Your task to perform on an android device: uninstall "Microsoft Excel" Image 0: 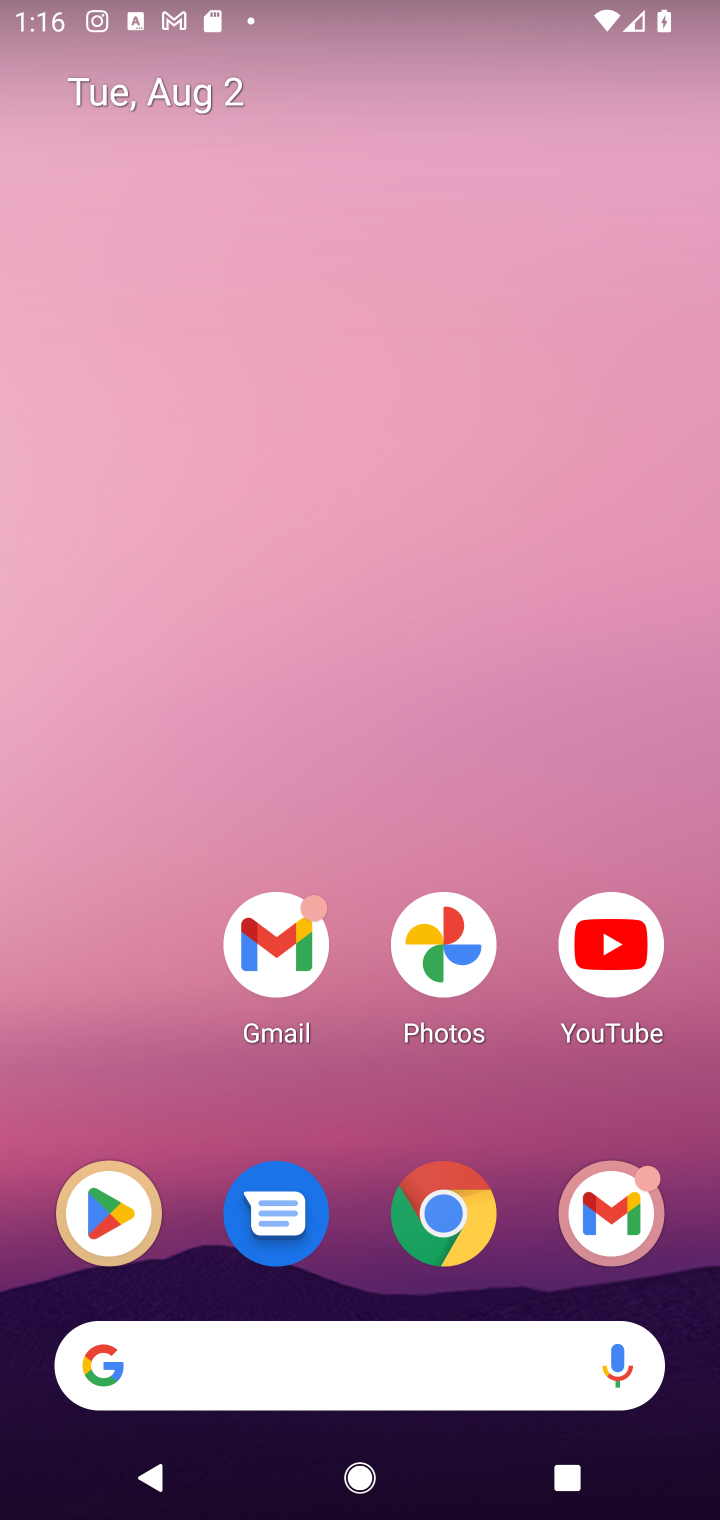
Step 0: press home button
Your task to perform on an android device: uninstall "Microsoft Excel" Image 1: 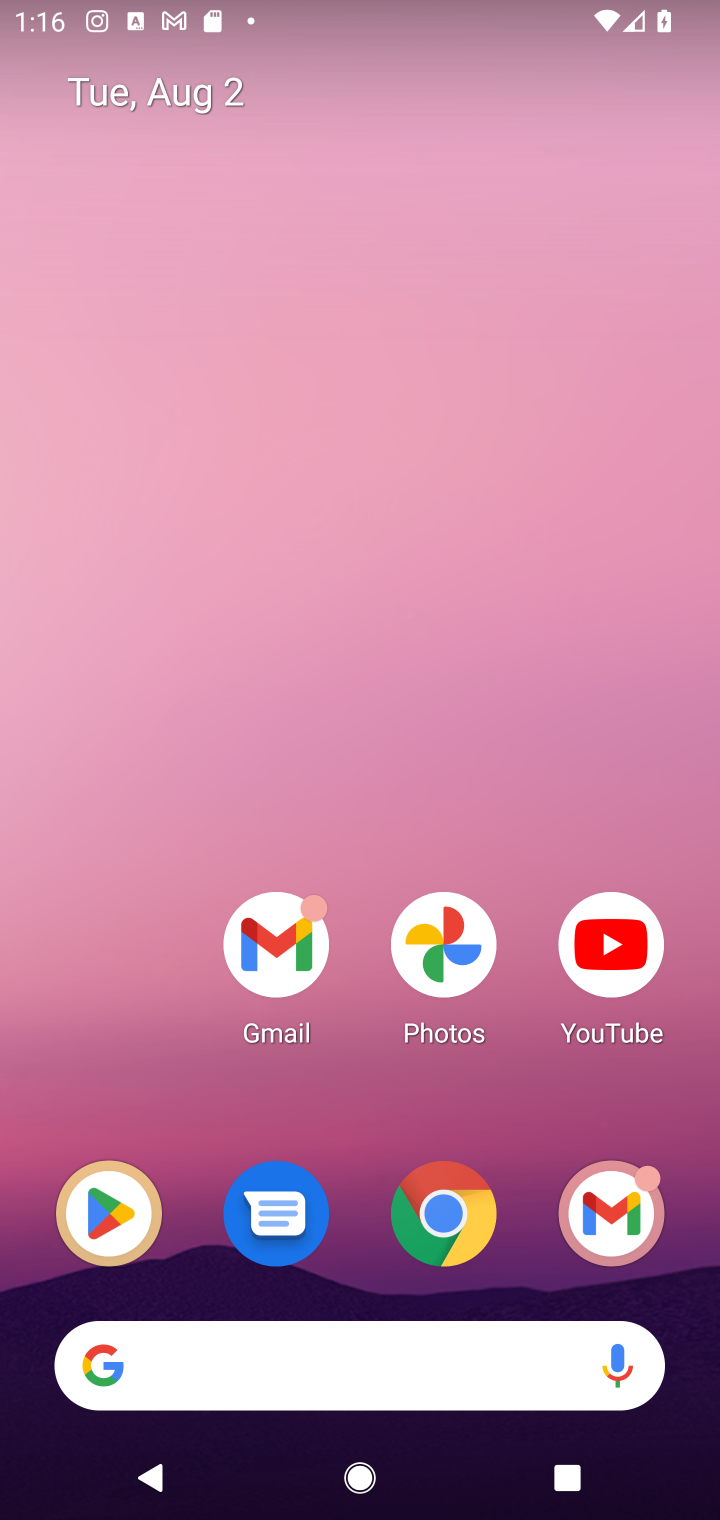
Step 1: click (109, 1210)
Your task to perform on an android device: uninstall "Microsoft Excel" Image 2: 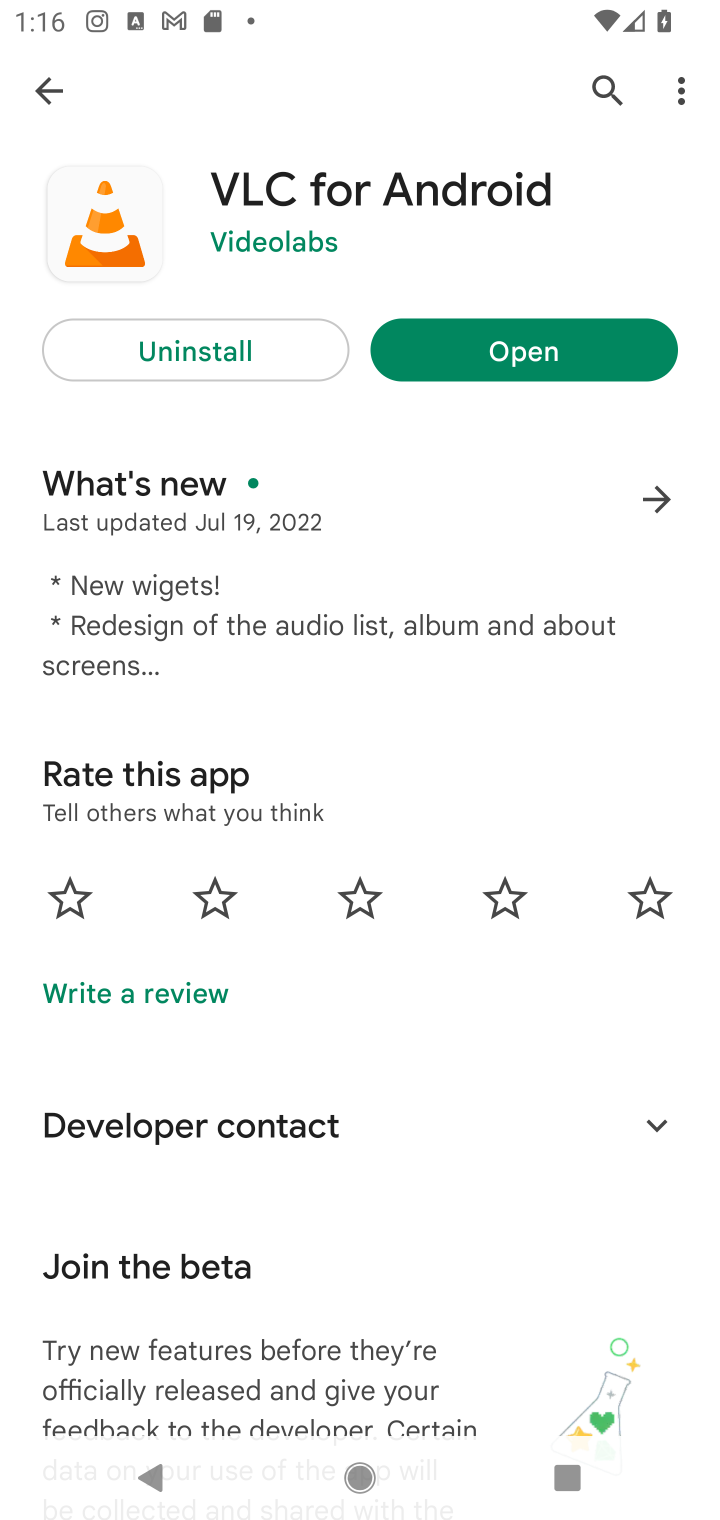
Step 2: click (40, 82)
Your task to perform on an android device: uninstall "Microsoft Excel" Image 3: 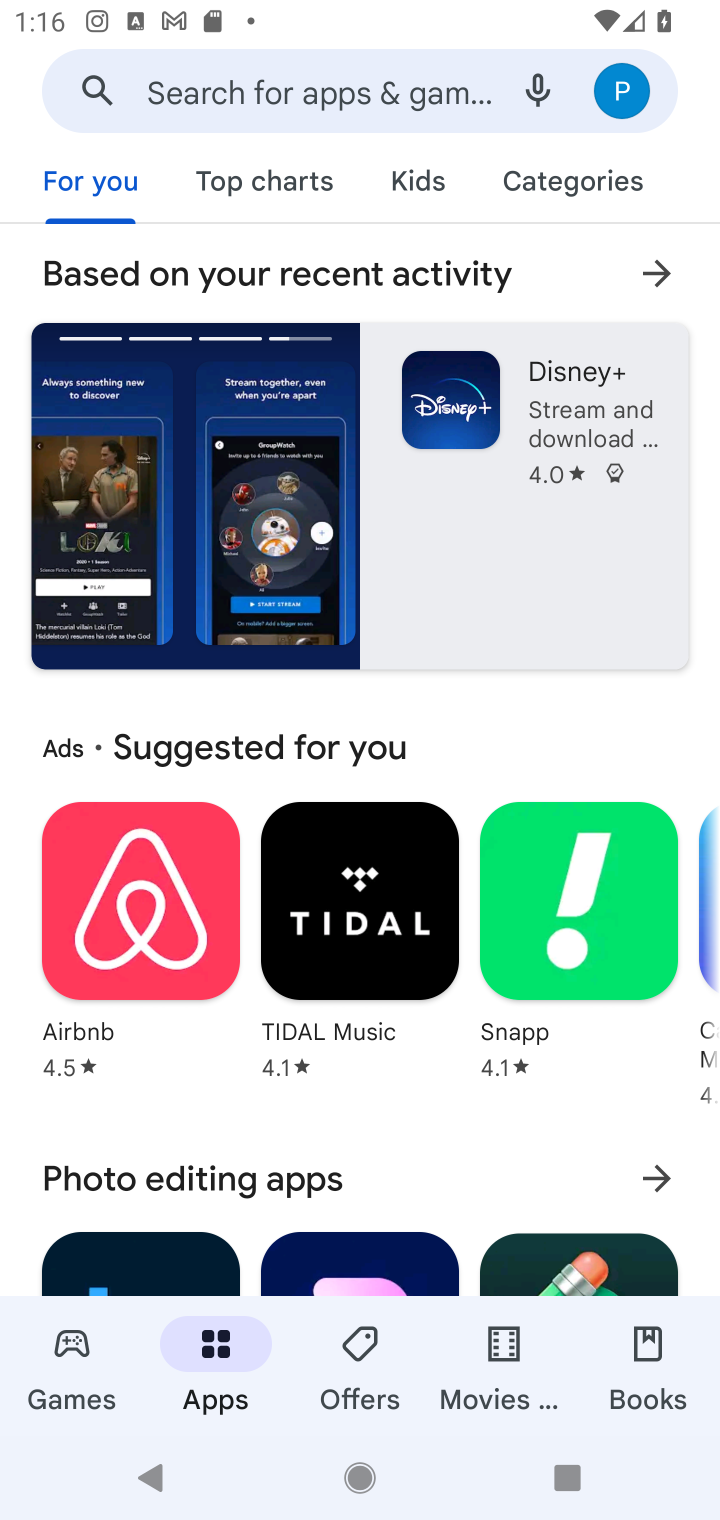
Step 3: click (243, 89)
Your task to perform on an android device: uninstall "Microsoft Excel" Image 4: 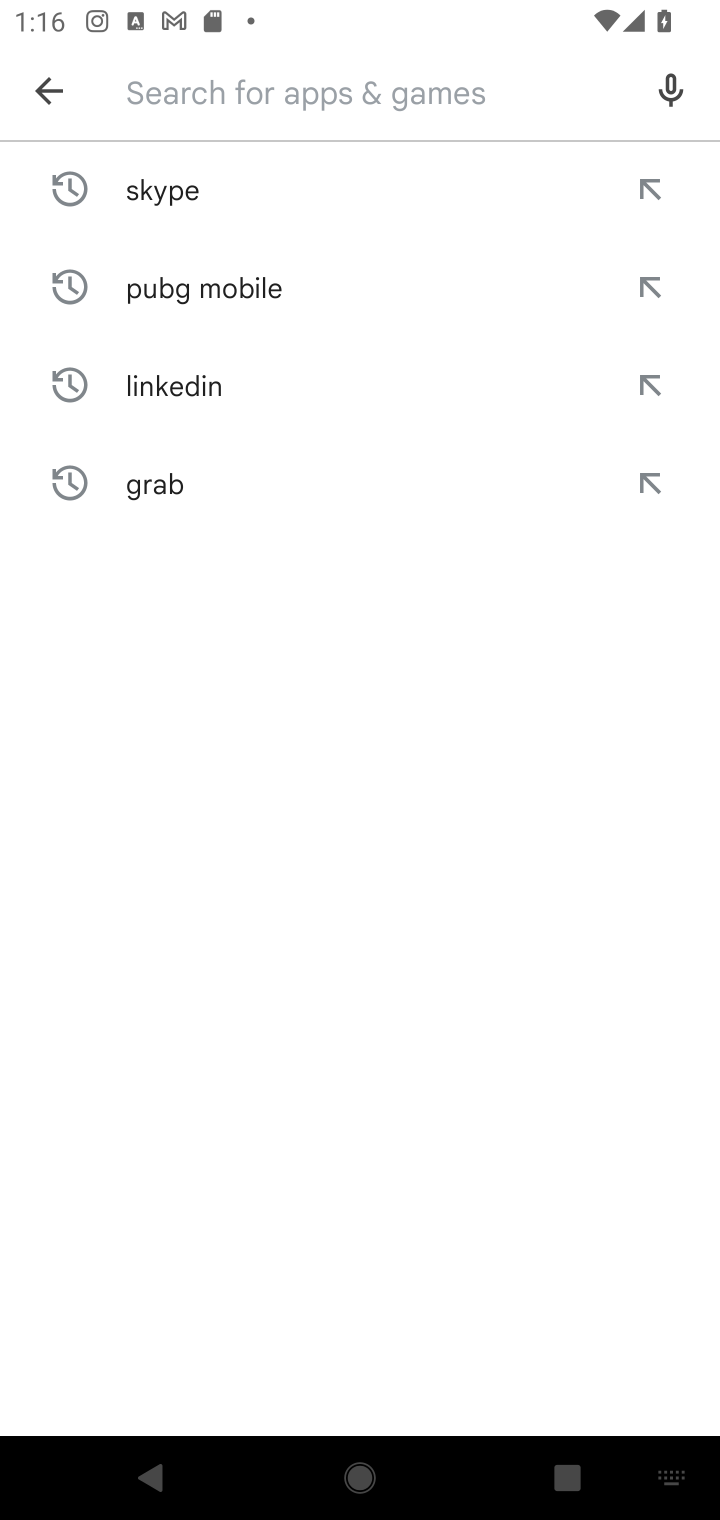
Step 4: type "Microsoft Excel"
Your task to perform on an android device: uninstall "Microsoft Excel" Image 5: 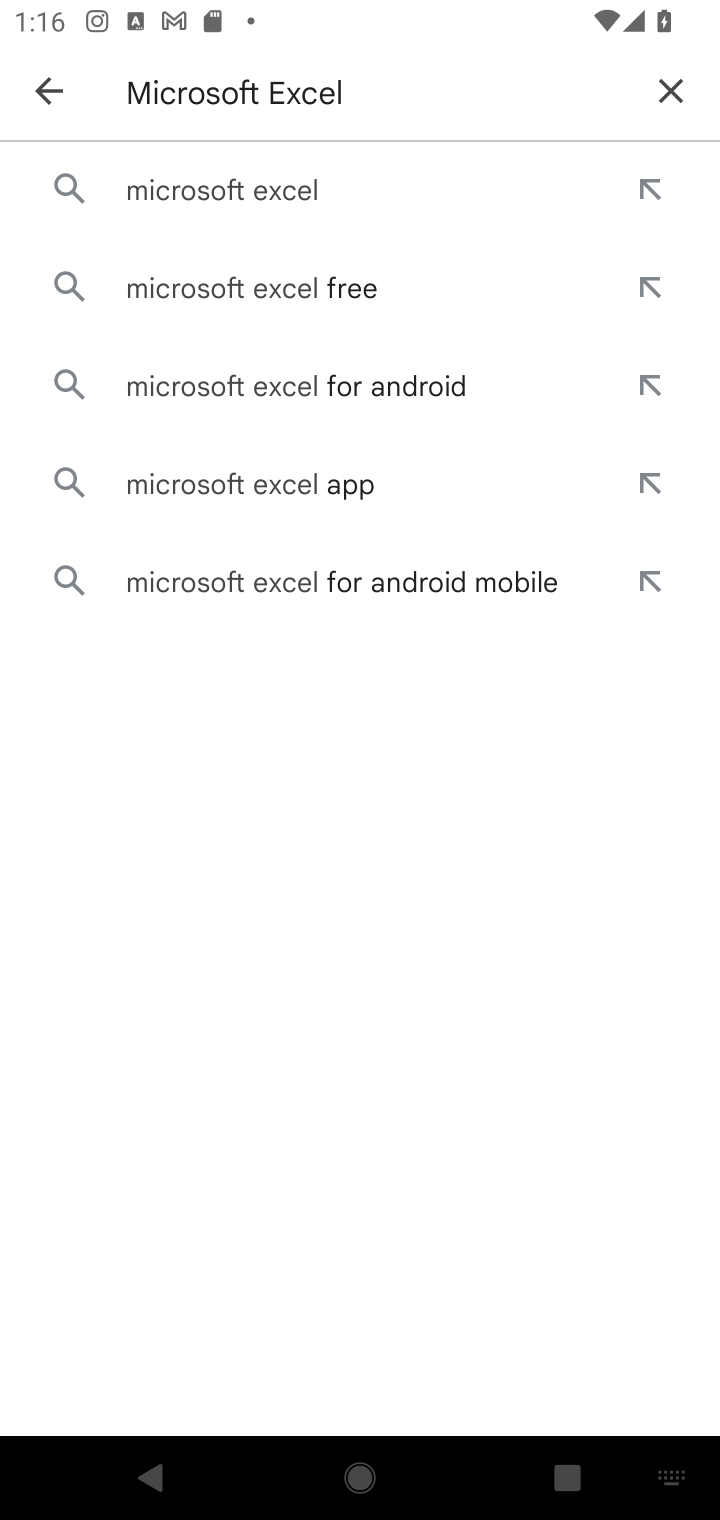
Step 5: click (300, 187)
Your task to perform on an android device: uninstall "Microsoft Excel" Image 6: 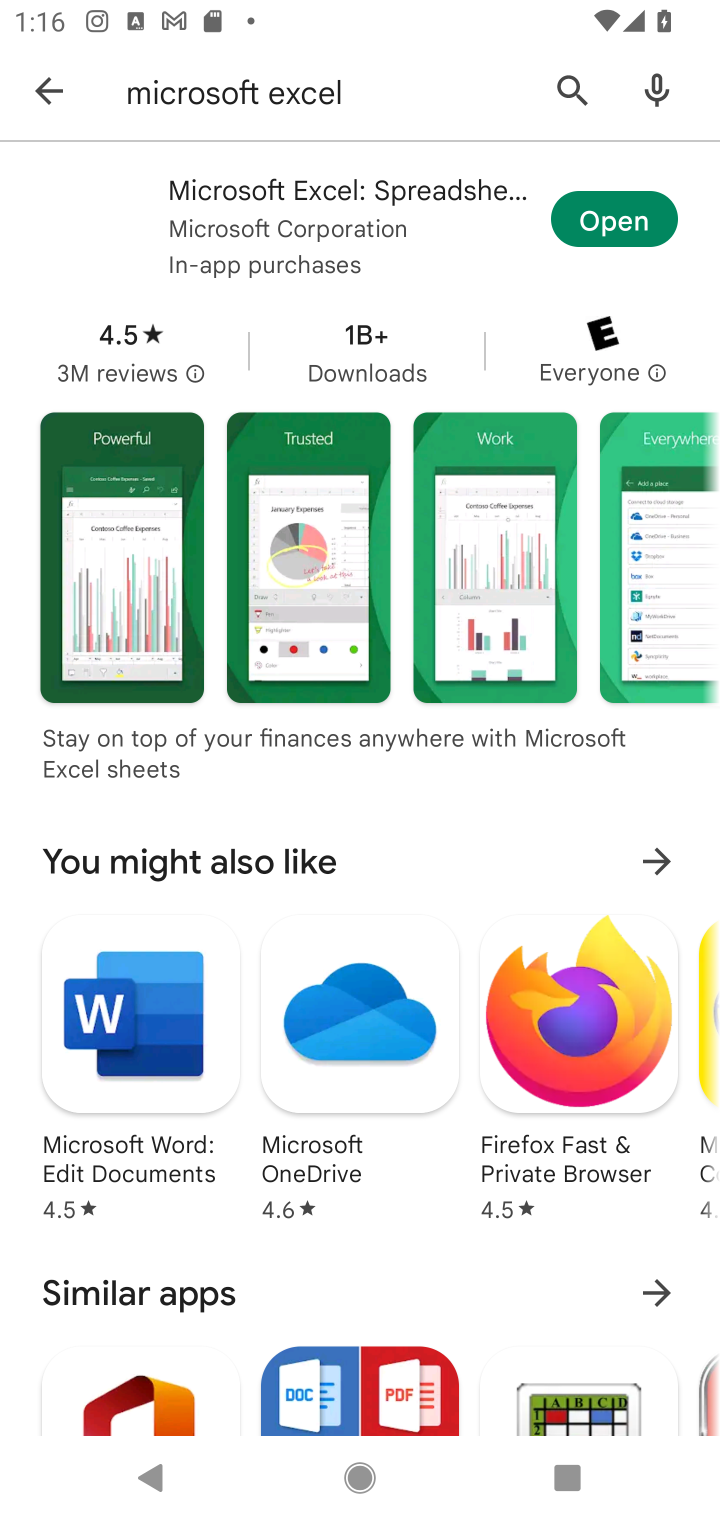
Step 6: click (250, 199)
Your task to perform on an android device: uninstall "Microsoft Excel" Image 7: 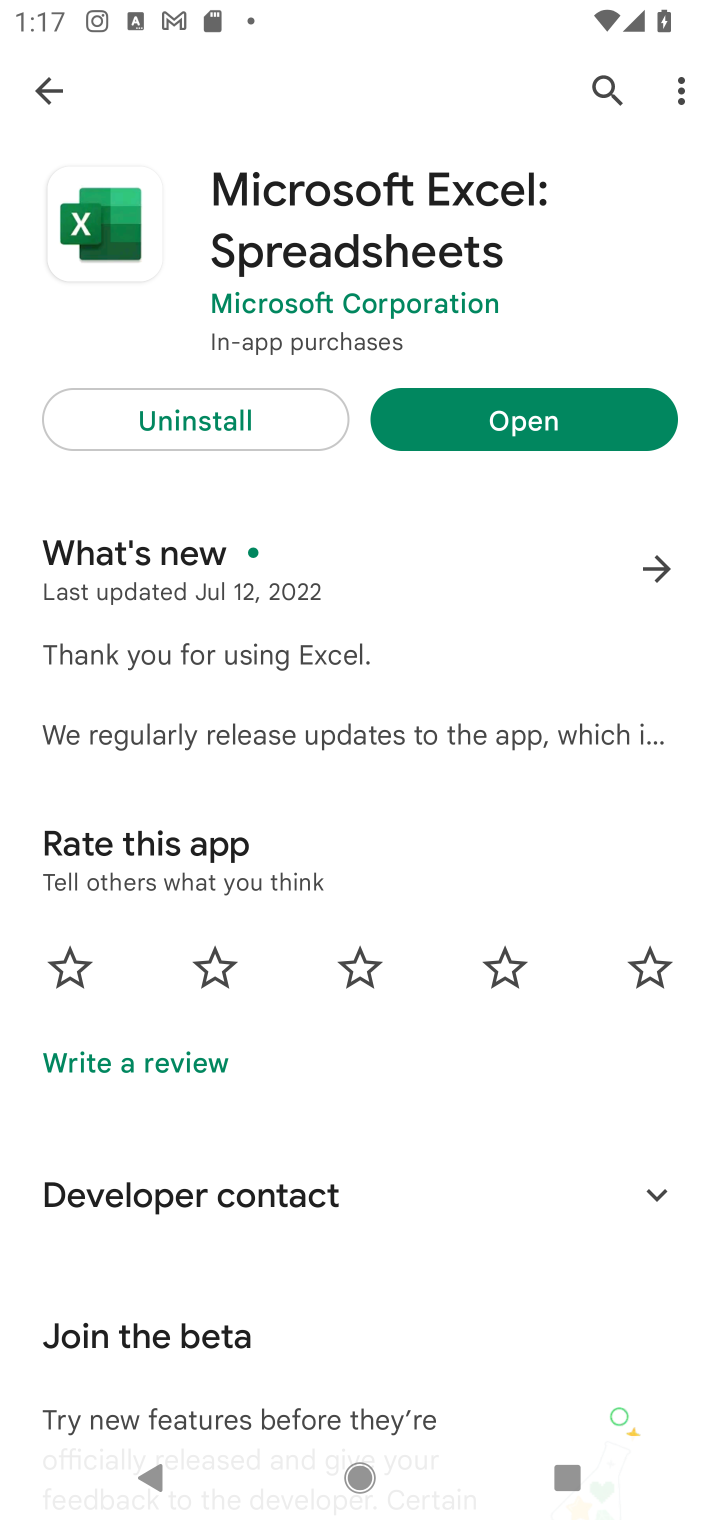
Step 7: click (216, 394)
Your task to perform on an android device: uninstall "Microsoft Excel" Image 8: 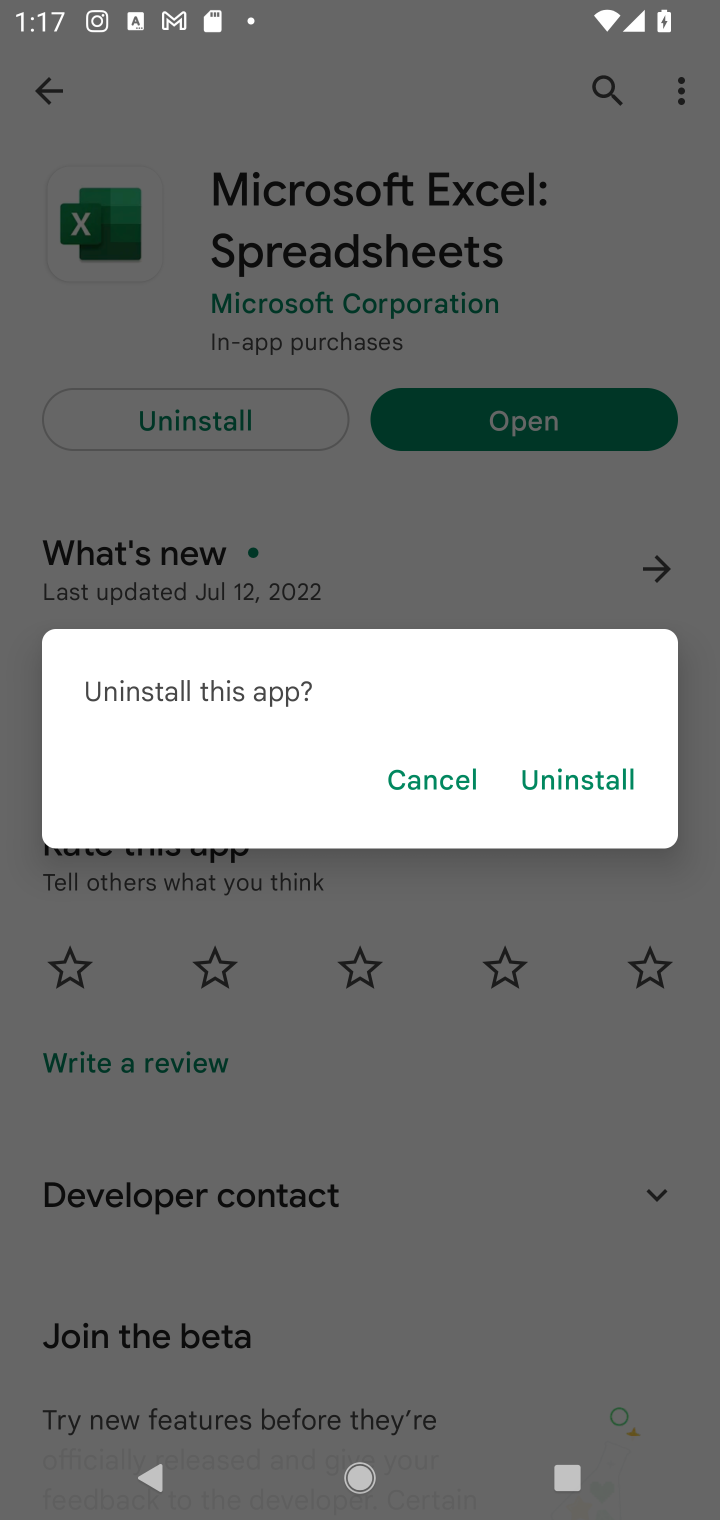
Step 8: click (577, 783)
Your task to perform on an android device: uninstall "Microsoft Excel" Image 9: 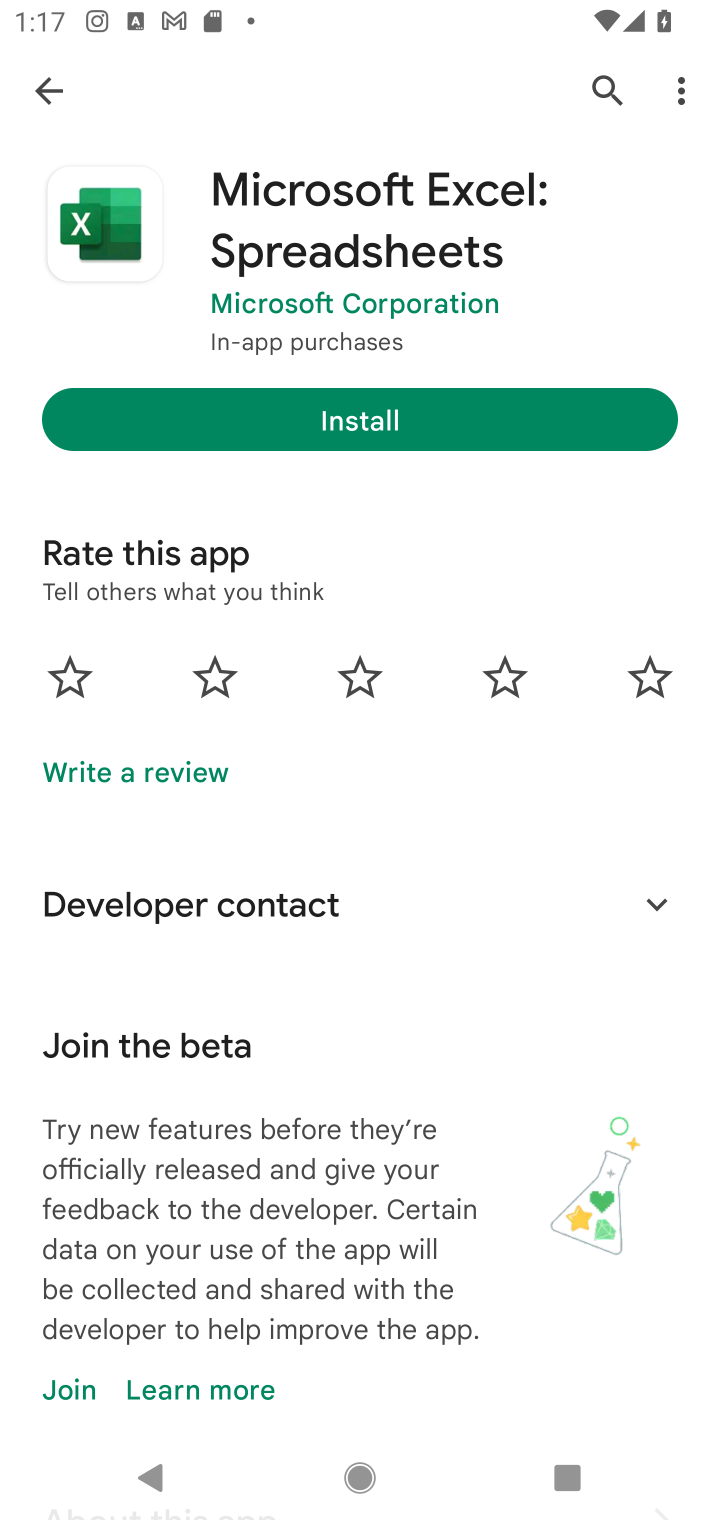
Step 9: task complete